Your task to perform on an android device: Is it going to rain this weekend? Image 0: 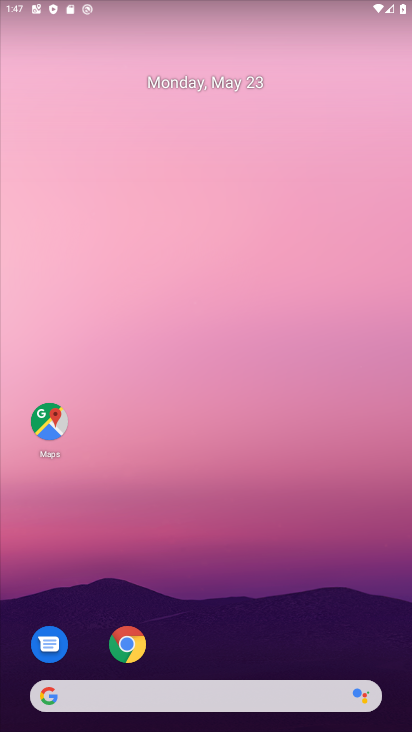
Step 0: drag from (239, 562) to (190, 6)
Your task to perform on an android device: Is it going to rain this weekend? Image 1: 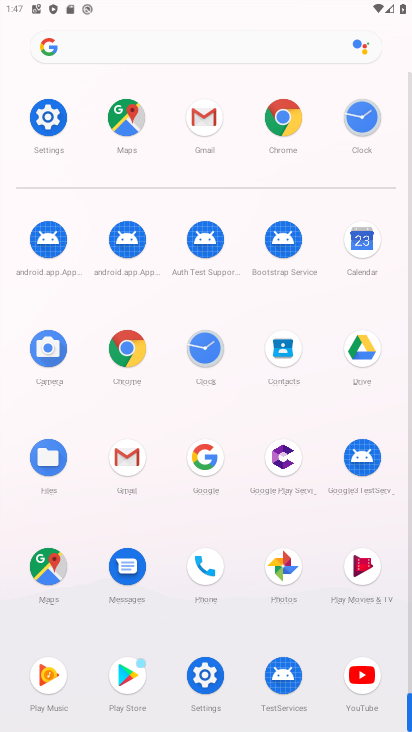
Step 1: drag from (8, 529) to (13, 196)
Your task to perform on an android device: Is it going to rain this weekend? Image 2: 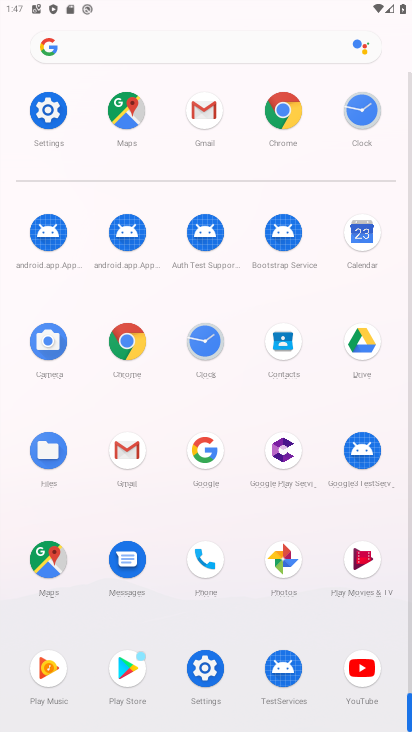
Step 2: drag from (9, 606) to (21, 243)
Your task to perform on an android device: Is it going to rain this weekend? Image 3: 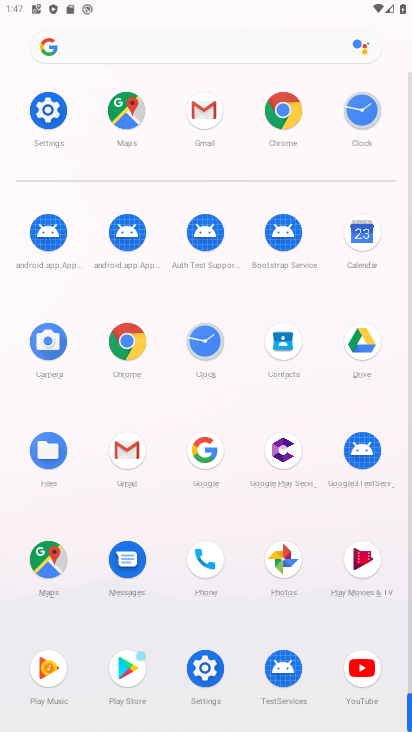
Step 3: click (130, 339)
Your task to perform on an android device: Is it going to rain this weekend? Image 4: 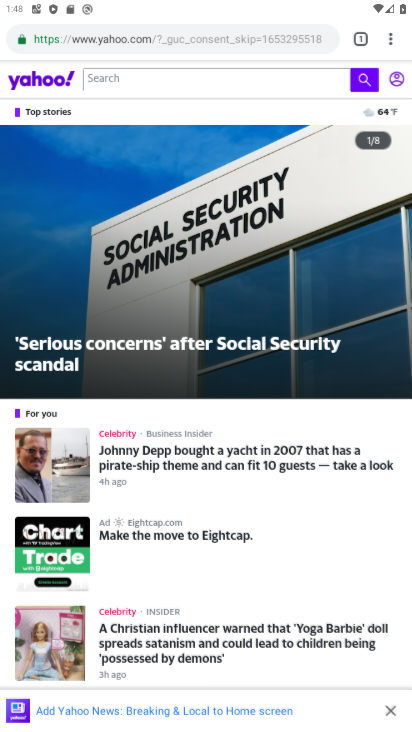
Step 4: click (175, 24)
Your task to perform on an android device: Is it going to rain this weekend? Image 5: 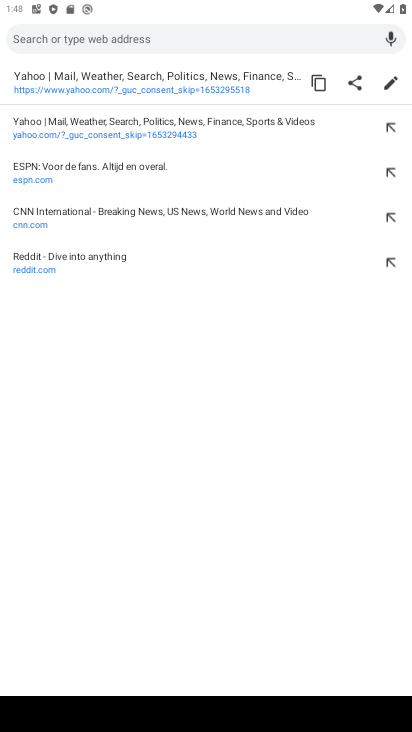
Step 5: click (98, 35)
Your task to perform on an android device: Is it going to rain this weekend? Image 6: 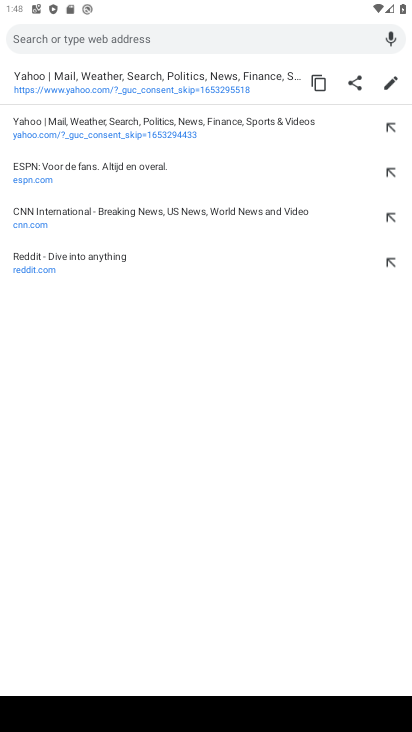
Step 6: type "Is it going to rain this weekend?"
Your task to perform on an android device: Is it going to rain this weekend? Image 7: 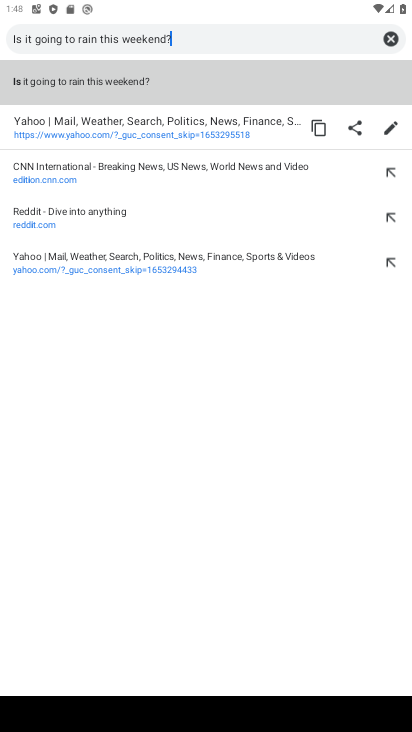
Step 7: type ""
Your task to perform on an android device: Is it going to rain this weekend? Image 8: 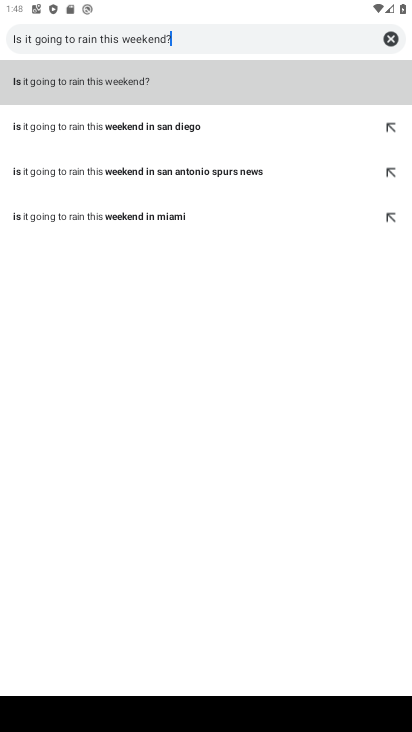
Step 8: click (120, 74)
Your task to perform on an android device: Is it going to rain this weekend? Image 9: 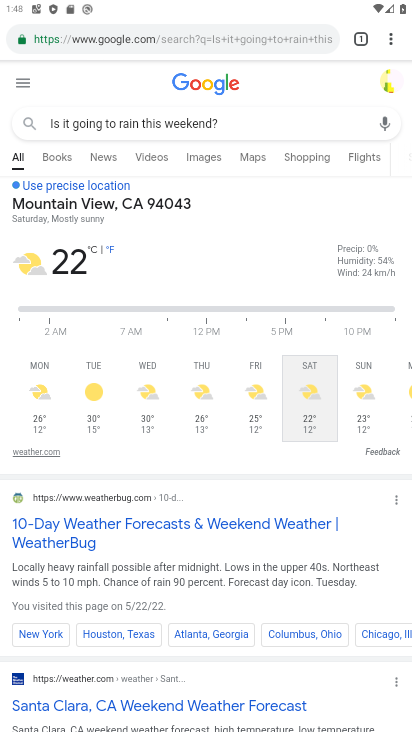
Step 9: task complete